Your task to perform on an android device: turn on translation in the chrome app Image 0: 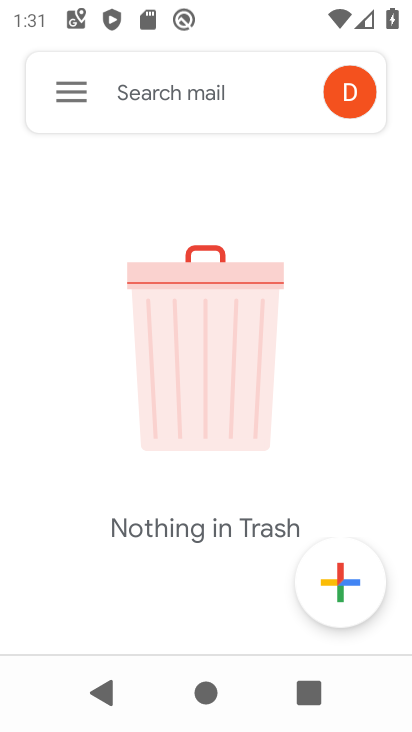
Step 0: press back button
Your task to perform on an android device: turn on translation in the chrome app Image 1: 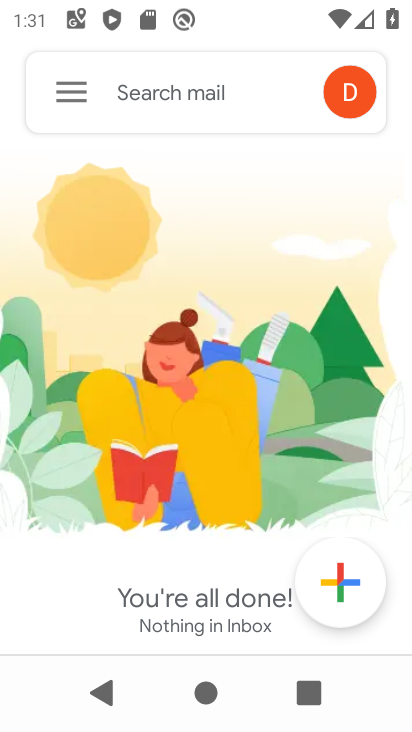
Step 1: press back button
Your task to perform on an android device: turn on translation in the chrome app Image 2: 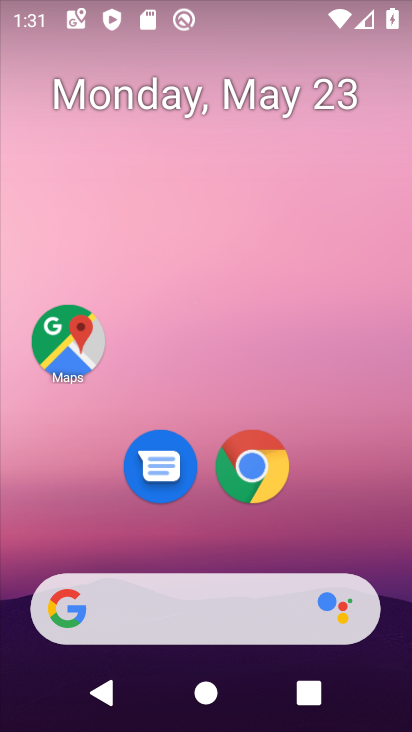
Step 2: click (252, 464)
Your task to perform on an android device: turn on translation in the chrome app Image 3: 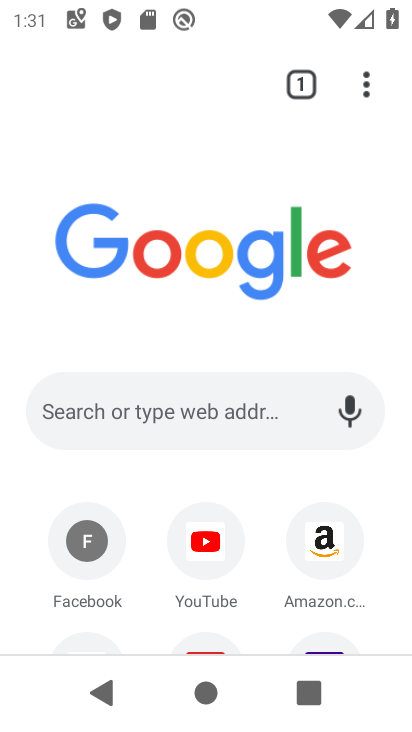
Step 3: click (367, 83)
Your task to perform on an android device: turn on translation in the chrome app Image 4: 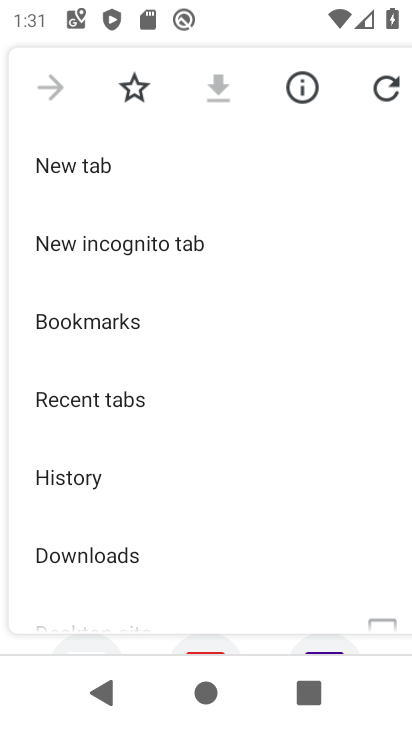
Step 4: drag from (149, 423) to (186, 364)
Your task to perform on an android device: turn on translation in the chrome app Image 5: 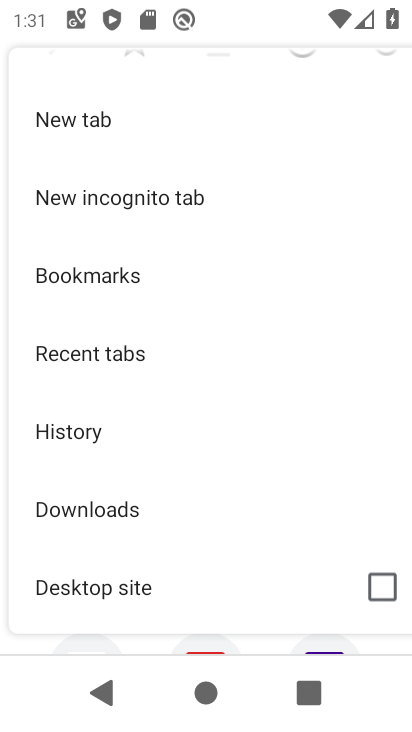
Step 5: drag from (128, 453) to (175, 381)
Your task to perform on an android device: turn on translation in the chrome app Image 6: 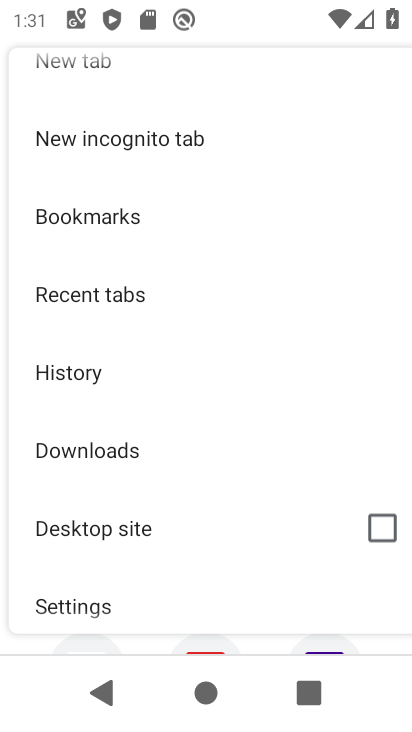
Step 6: drag from (123, 477) to (154, 417)
Your task to perform on an android device: turn on translation in the chrome app Image 7: 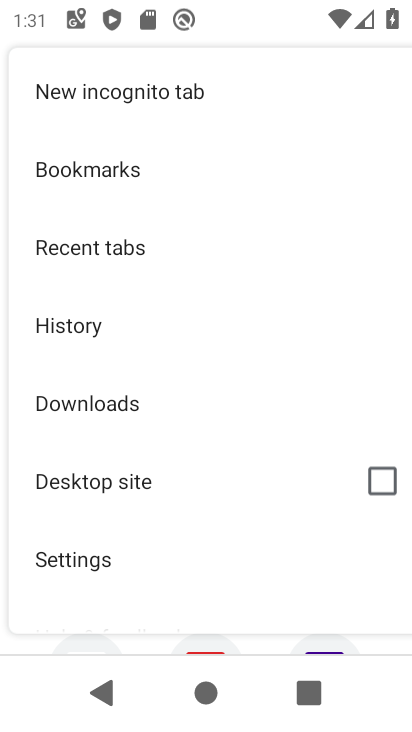
Step 7: drag from (96, 508) to (132, 426)
Your task to perform on an android device: turn on translation in the chrome app Image 8: 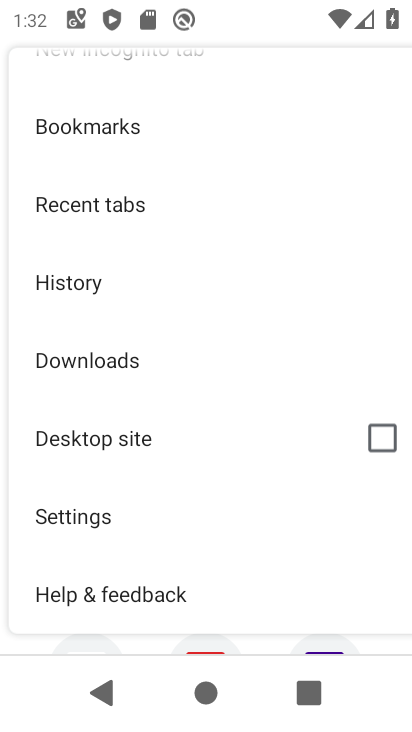
Step 8: click (79, 511)
Your task to perform on an android device: turn on translation in the chrome app Image 9: 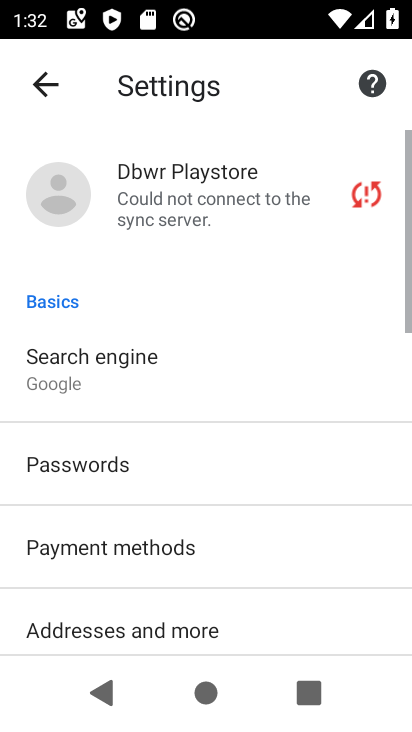
Step 9: drag from (144, 464) to (160, 387)
Your task to perform on an android device: turn on translation in the chrome app Image 10: 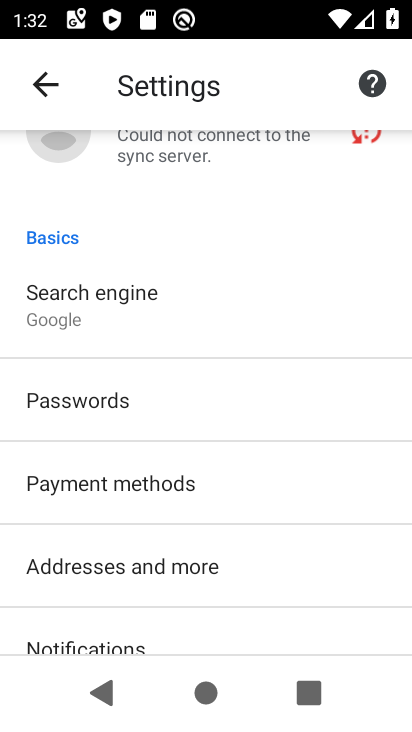
Step 10: drag from (154, 548) to (193, 431)
Your task to perform on an android device: turn on translation in the chrome app Image 11: 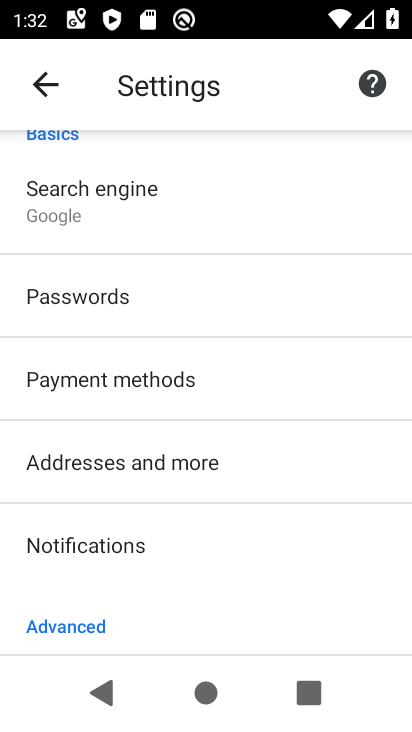
Step 11: drag from (143, 555) to (191, 449)
Your task to perform on an android device: turn on translation in the chrome app Image 12: 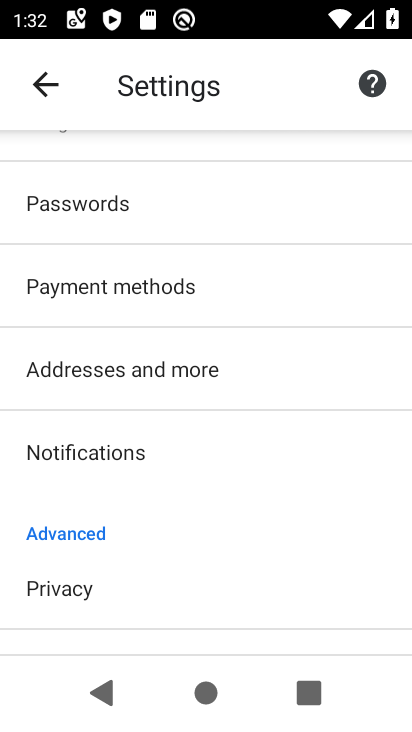
Step 12: drag from (110, 574) to (165, 479)
Your task to perform on an android device: turn on translation in the chrome app Image 13: 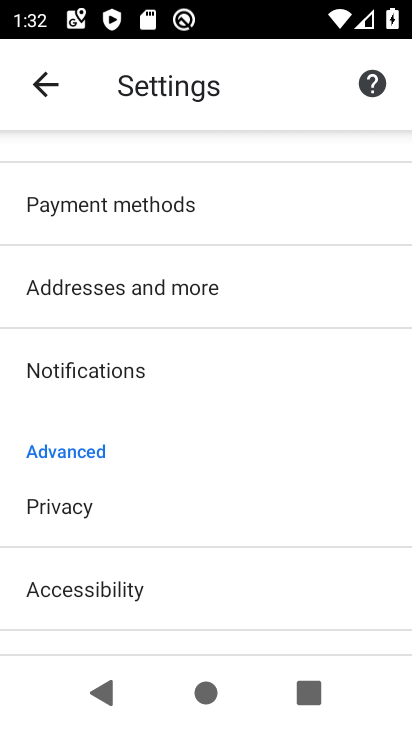
Step 13: drag from (144, 553) to (170, 495)
Your task to perform on an android device: turn on translation in the chrome app Image 14: 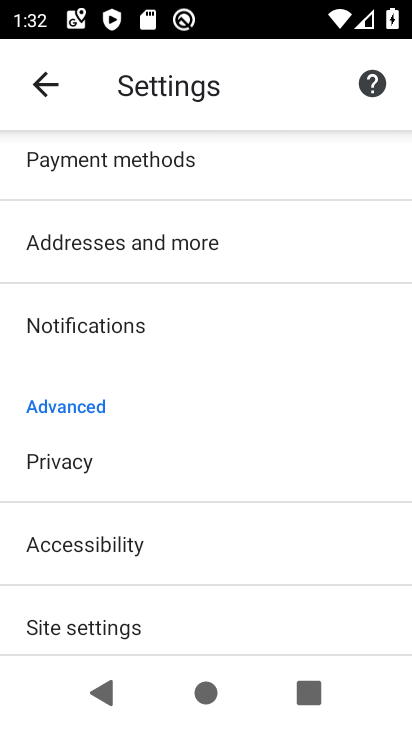
Step 14: drag from (118, 607) to (188, 496)
Your task to perform on an android device: turn on translation in the chrome app Image 15: 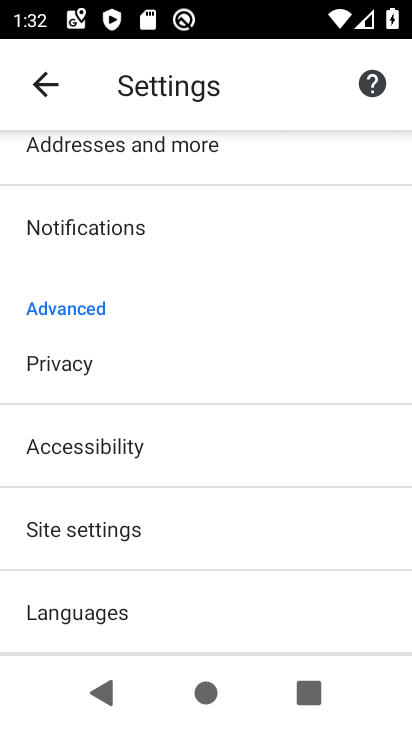
Step 15: drag from (141, 589) to (186, 499)
Your task to perform on an android device: turn on translation in the chrome app Image 16: 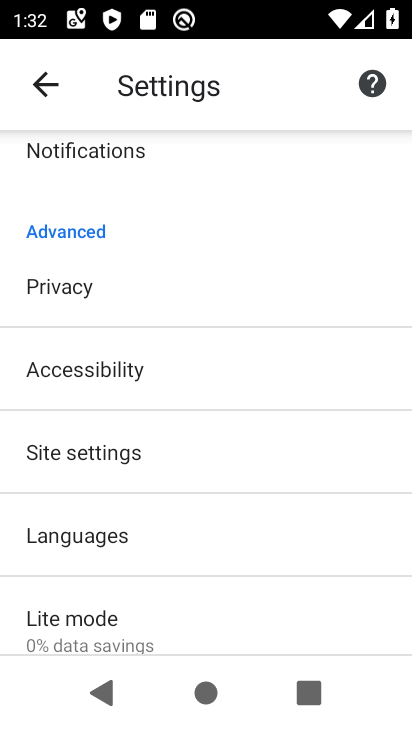
Step 16: click (99, 537)
Your task to perform on an android device: turn on translation in the chrome app Image 17: 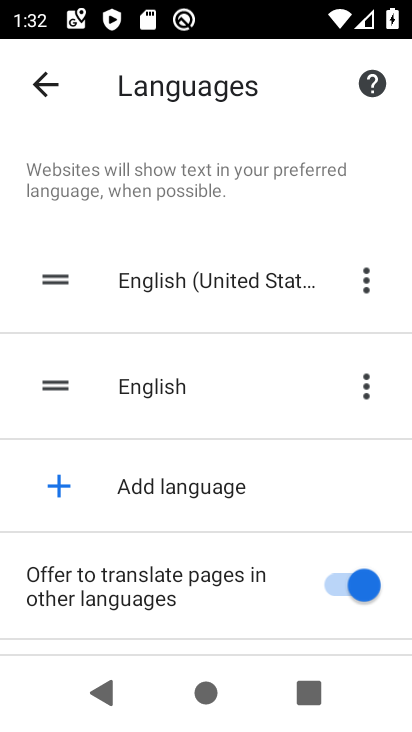
Step 17: task complete